Your task to perform on an android device: Open calendar and show me the fourth week of next month Image 0: 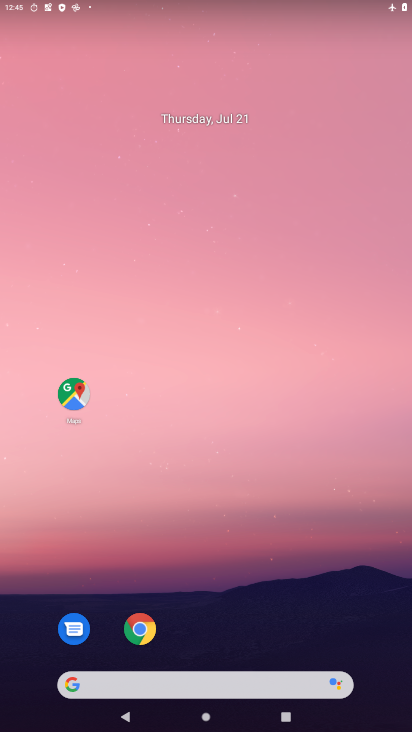
Step 0: drag from (210, 679) to (229, 126)
Your task to perform on an android device: Open calendar and show me the fourth week of next month Image 1: 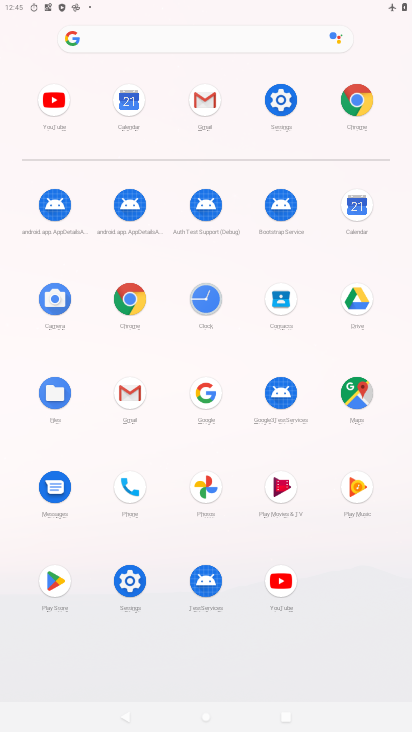
Step 1: click (354, 211)
Your task to perform on an android device: Open calendar and show me the fourth week of next month Image 2: 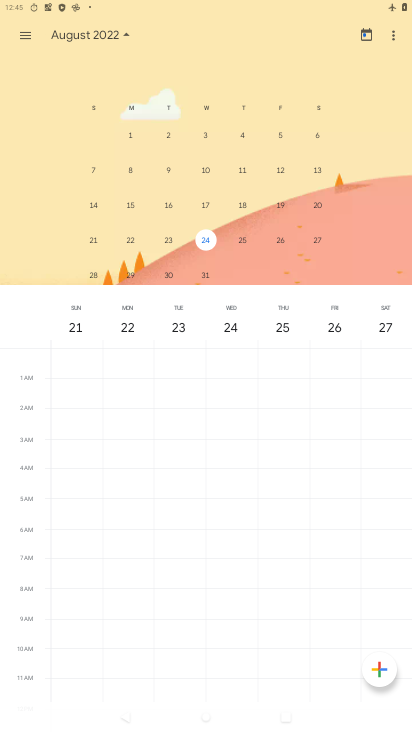
Step 2: task complete